Your task to perform on an android device: turn off improve location accuracy Image 0: 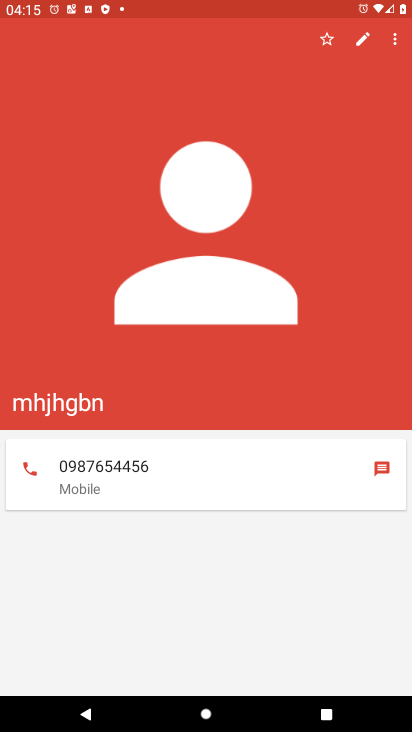
Step 0: press home button
Your task to perform on an android device: turn off improve location accuracy Image 1: 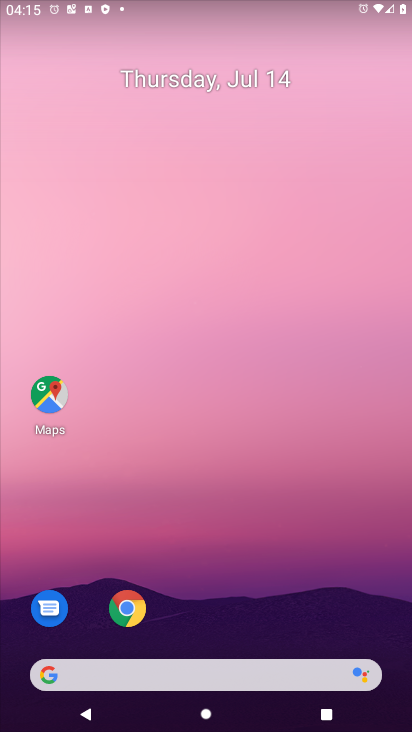
Step 1: drag from (374, 646) to (324, 168)
Your task to perform on an android device: turn off improve location accuracy Image 2: 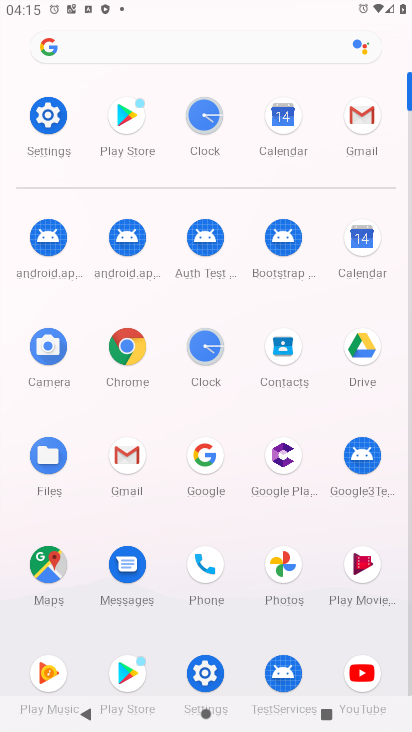
Step 2: click (207, 671)
Your task to perform on an android device: turn off improve location accuracy Image 3: 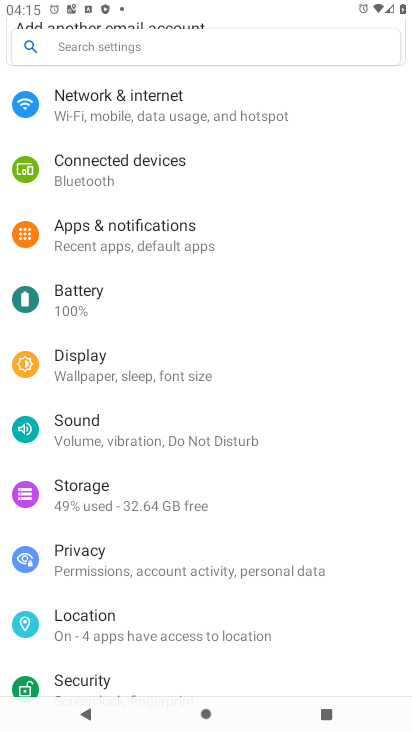
Step 3: click (78, 627)
Your task to perform on an android device: turn off improve location accuracy Image 4: 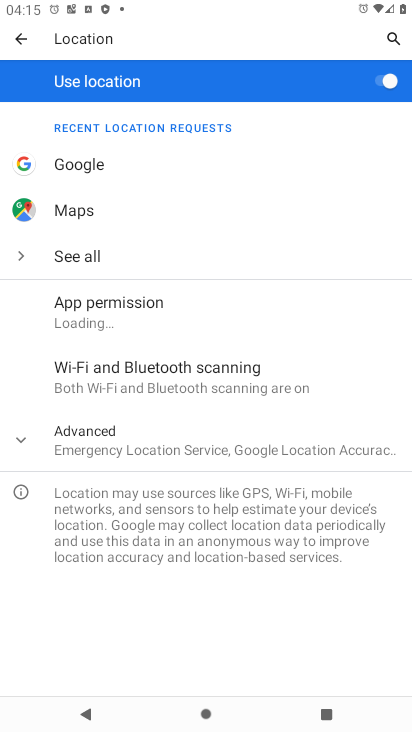
Step 4: click (18, 437)
Your task to perform on an android device: turn off improve location accuracy Image 5: 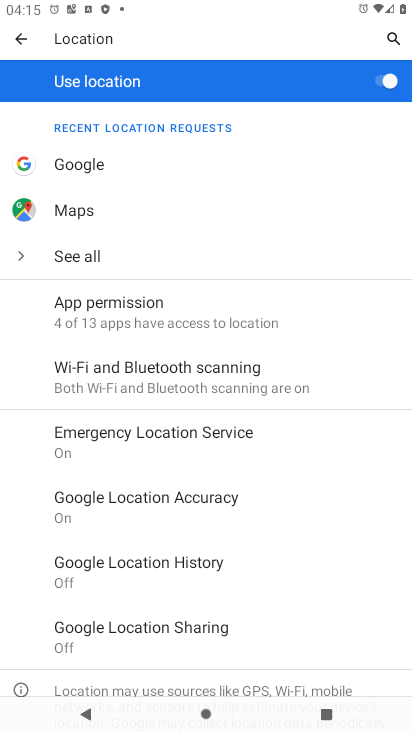
Step 5: click (127, 492)
Your task to perform on an android device: turn off improve location accuracy Image 6: 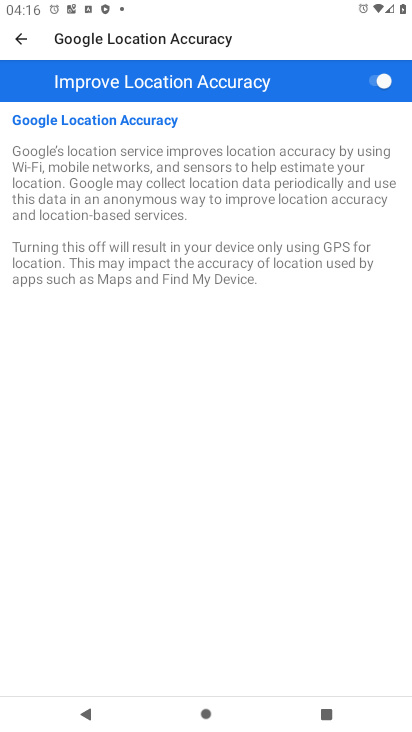
Step 6: click (370, 79)
Your task to perform on an android device: turn off improve location accuracy Image 7: 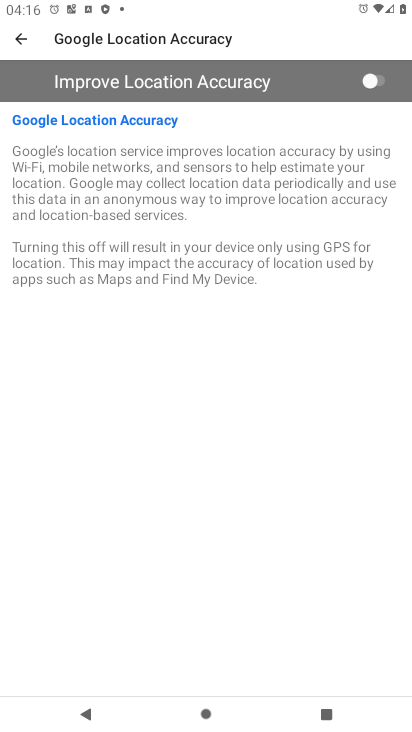
Step 7: task complete